Your task to perform on an android device: remove spam from my inbox in the gmail app Image 0: 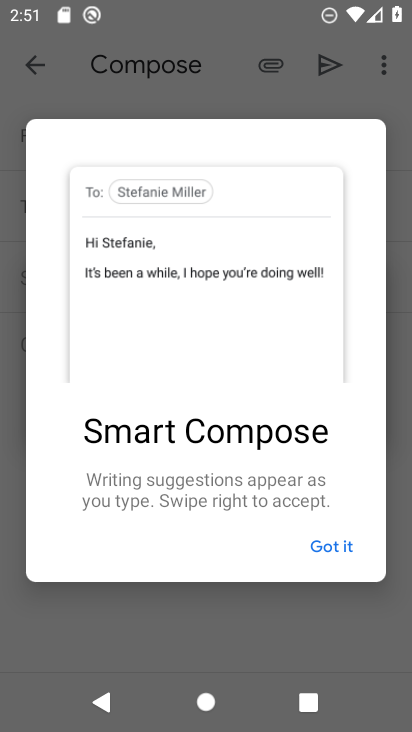
Step 0: click (353, 534)
Your task to perform on an android device: remove spam from my inbox in the gmail app Image 1: 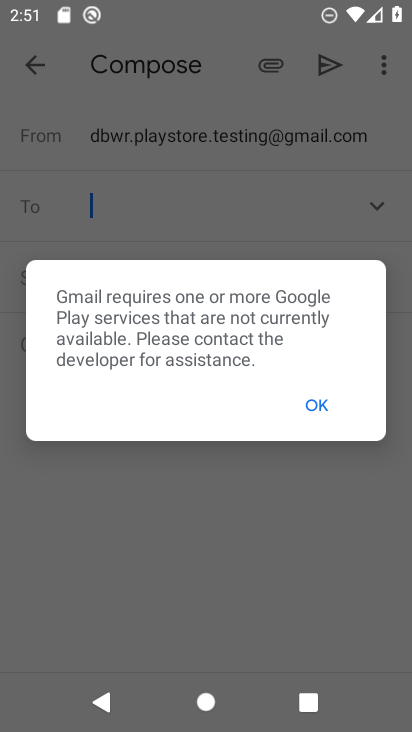
Step 1: press back button
Your task to perform on an android device: remove spam from my inbox in the gmail app Image 2: 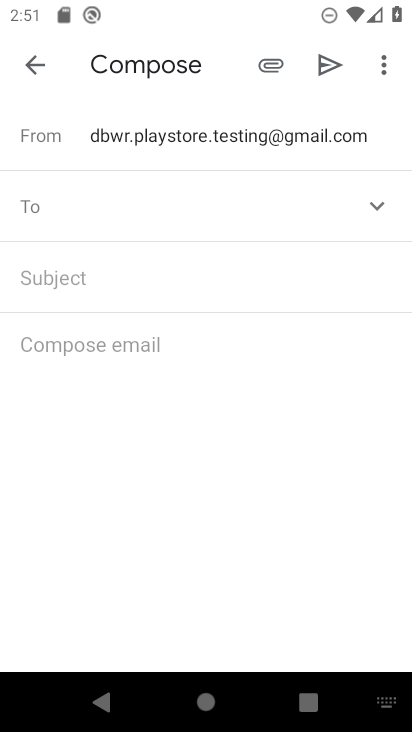
Step 2: press home button
Your task to perform on an android device: remove spam from my inbox in the gmail app Image 3: 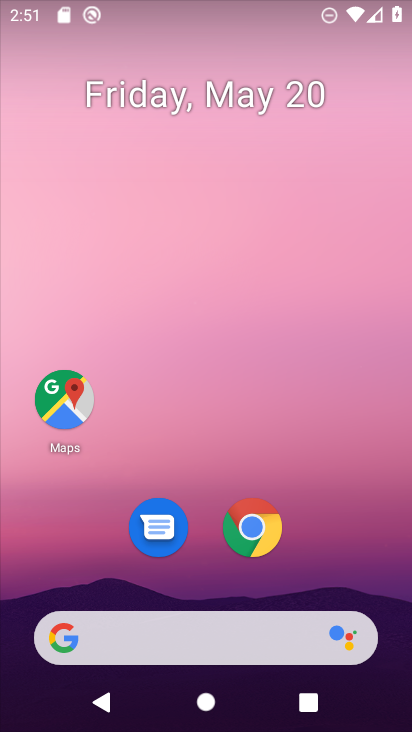
Step 3: drag from (219, 499) to (327, 43)
Your task to perform on an android device: remove spam from my inbox in the gmail app Image 4: 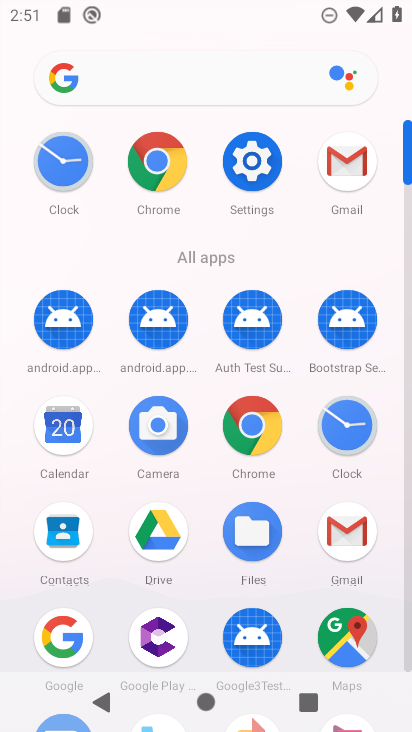
Step 4: click (353, 166)
Your task to perform on an android device: remove spam from my inbox in the gmail app Image 5: 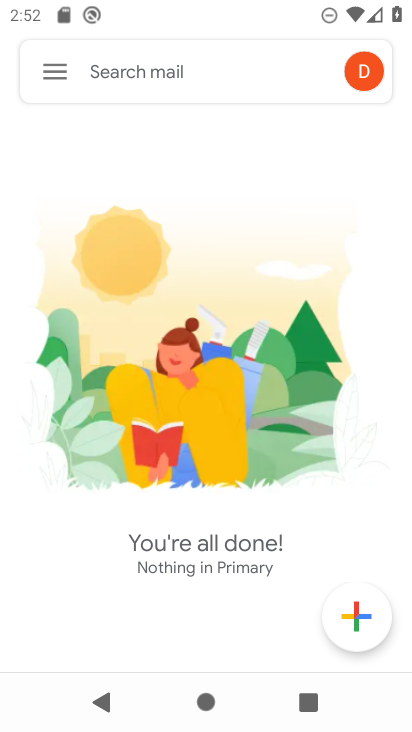
Step 5: click (44, 69)
Your task to perform on an android device: remove spam from my inbox in the gmail app Image 6: 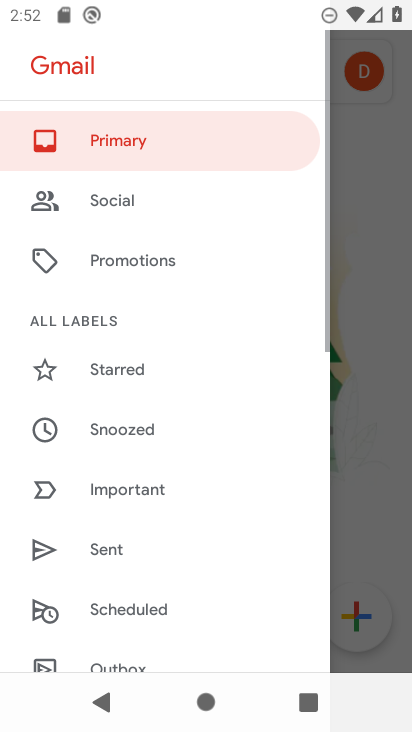
Step 6: drag from (127, 590) to (260, 73)
Your task to perform on an android device: remove spam from my inbox in the gmail app Image 7: 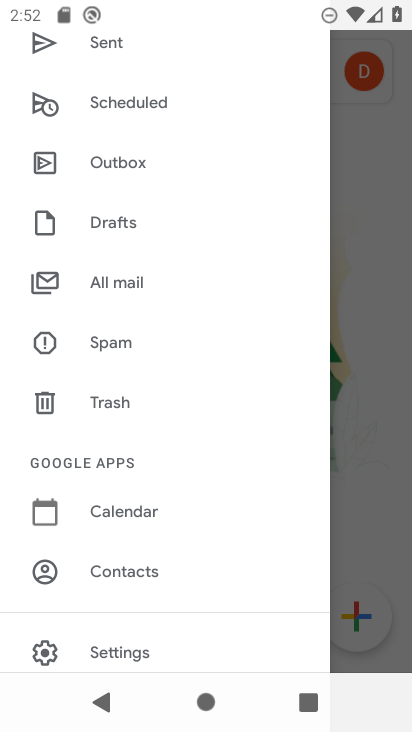
Step 7: click (115, 334)
Your task to perform on an android device: remove spam from my inbox in the gmail app Image 8: 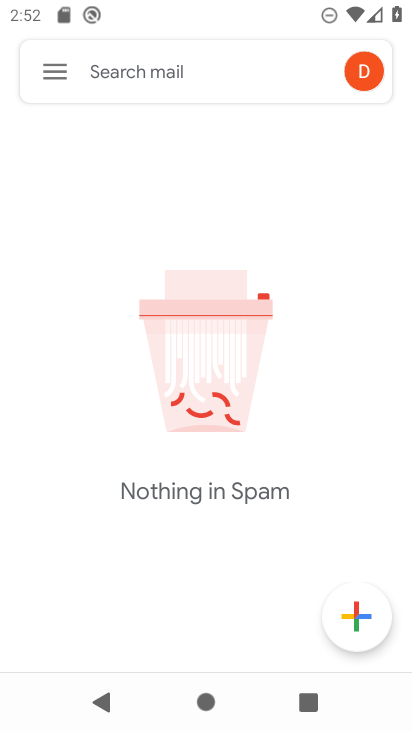
Step 8: task complete